Your task to perform on an android device: clear history in the chrome app Image 0: 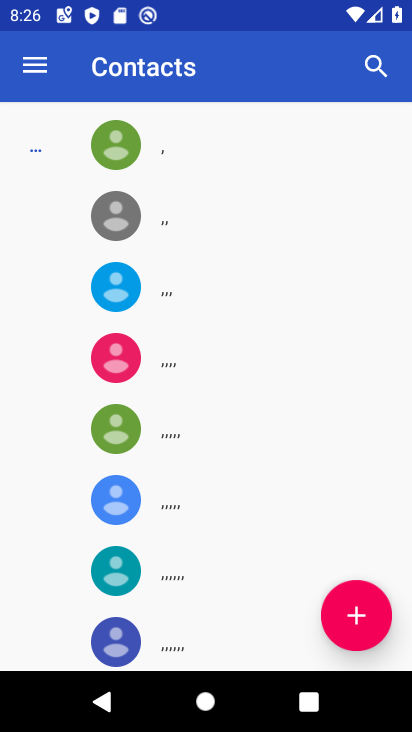
Step 0: press home button
Your task to perform on an android device: clear history in the chrome app Image 1: 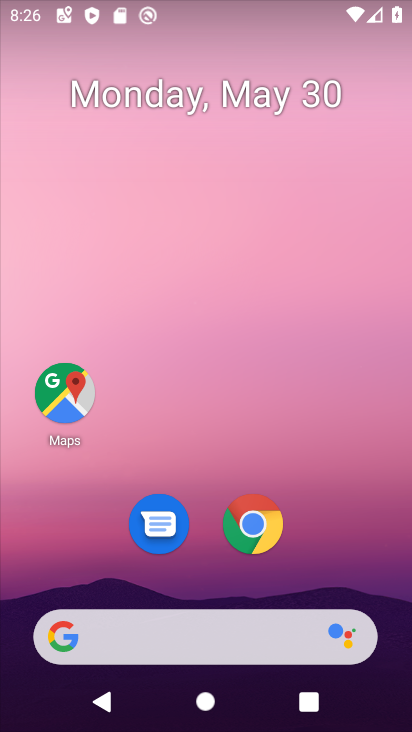
Step 1: click (266, 514)
Your task to perform on an android device: clear history in the chrome app Image 2: 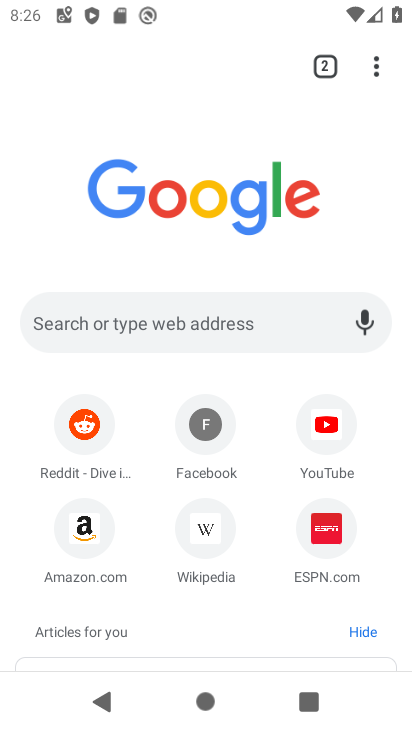
Step 2: click (347, 143)
Your task to perform on an android device: clear history in the chrome app Image 3: 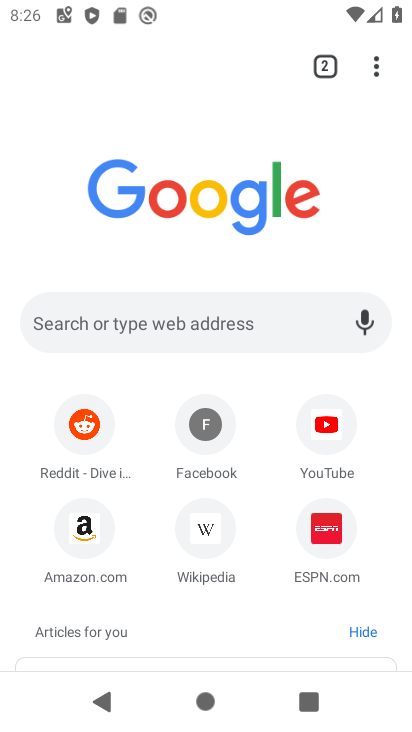
Step 3: click (377, 52)
Your task to perform on an android device: clear history in the chrome app Image 4: 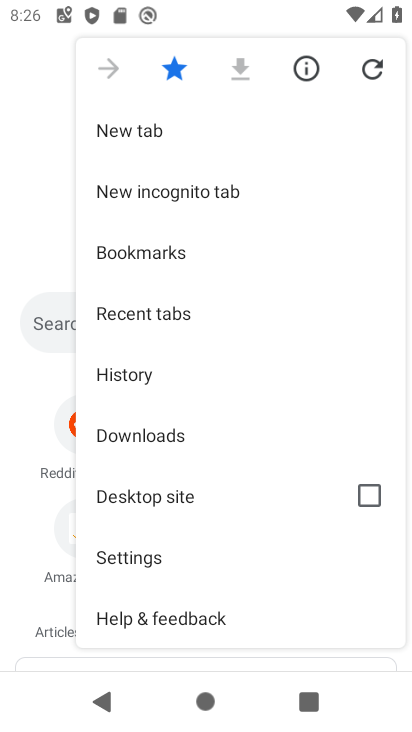
Step 4: click (154, 380)
Your task to perform on an android device: clear history in the chrome app Image 5: 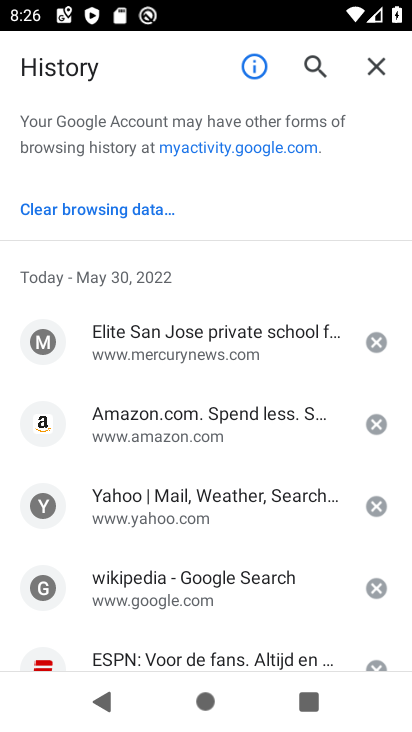
Step 5: click (121, 201)
Your task to perform on an android device: clear history in the chrome app Image 6: 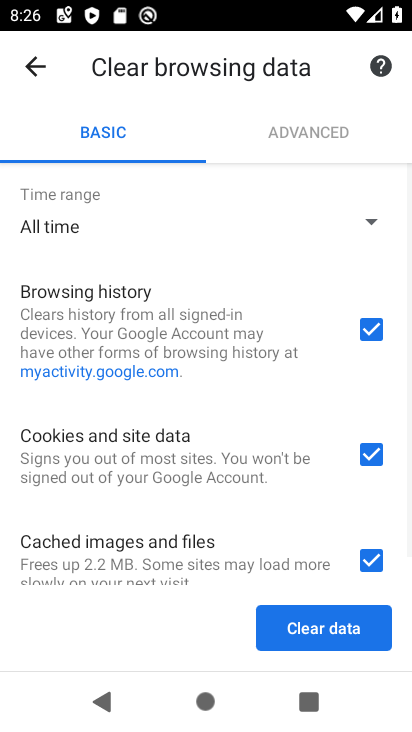
Step 6: click (317, 627)
Your task to perform on an android device: clear history in the chrome app Image 7: 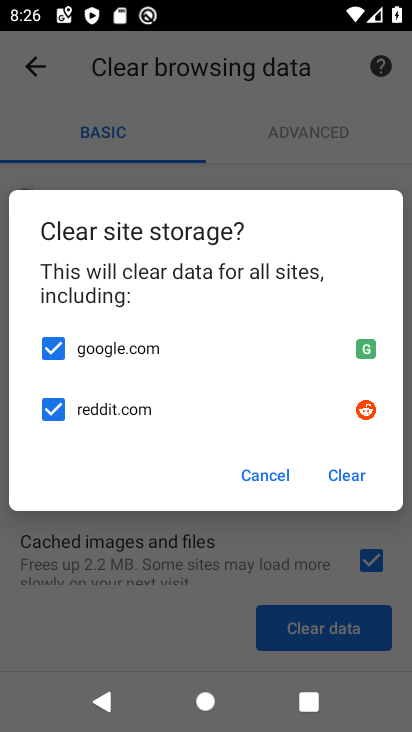
Step 7: click (345, 465)
Your task to perform on an android device: clear history in the chrome app Image 8: 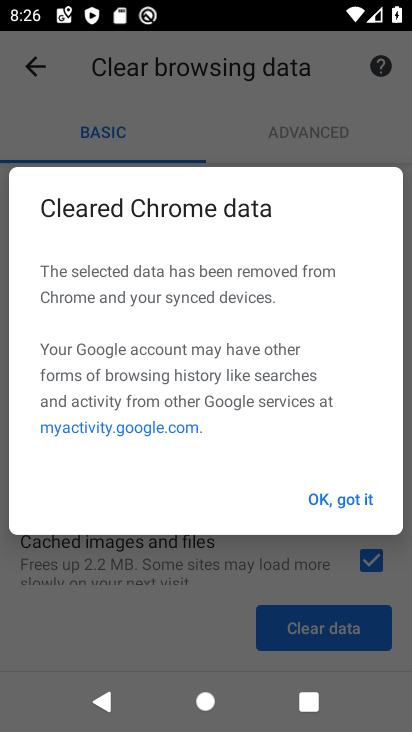
Step 8: click (349, 494)
Your task to perform on an android device: clear history in the chrome app Image 9: 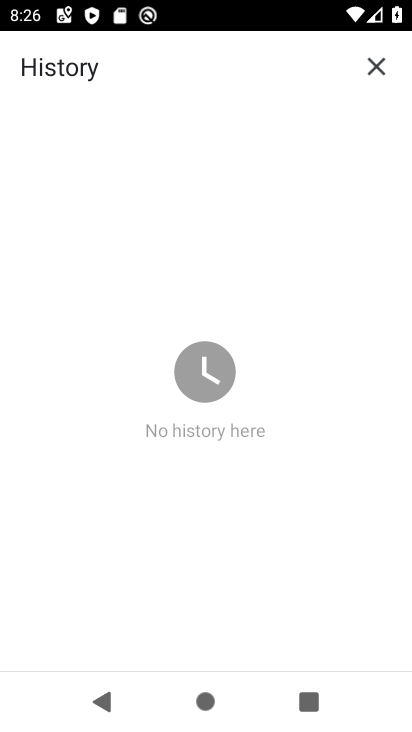
Step 9: task complete